Your task to perform on an android device: toggle airplane mode Image 0: 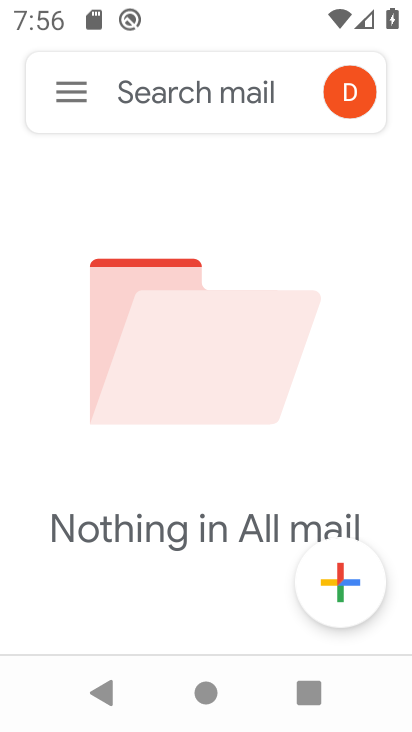
Step 0: press home button
Your task to perform on an android device: toggle airplane mode Image 1: 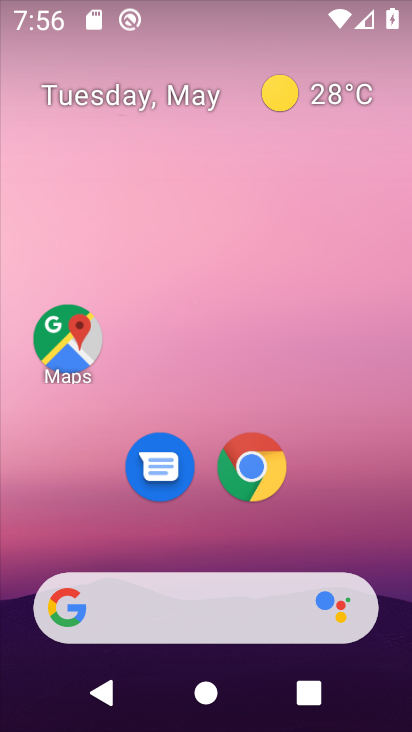
Step 1: drag from (376, 660) to (294, 3)
Your task to perform on an android device: toggle airplane mode Image 2: 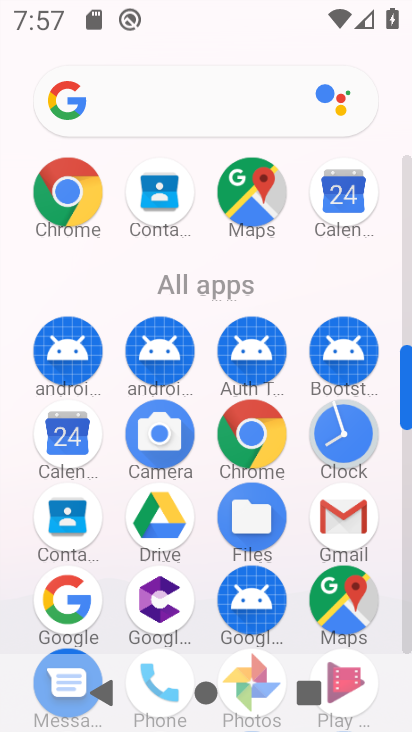
Step 2: drag from (188, 625) to (193, 278)
Your task to perform on an android device: toggle airplane mode Image 3: 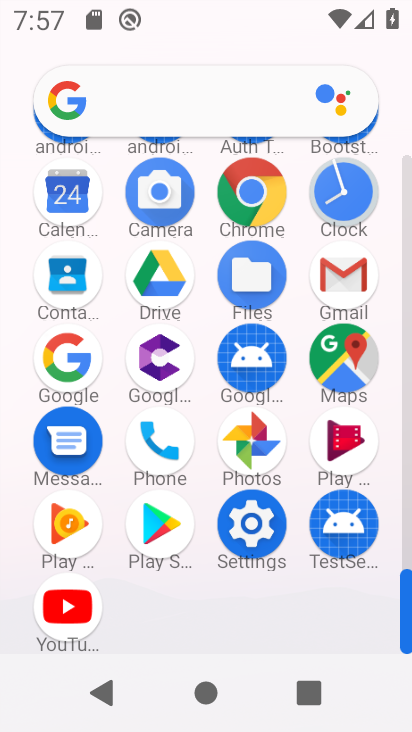
Step 3: click (235, 520)
Your task to perform on an android device: toggle airplane mode Image 4: 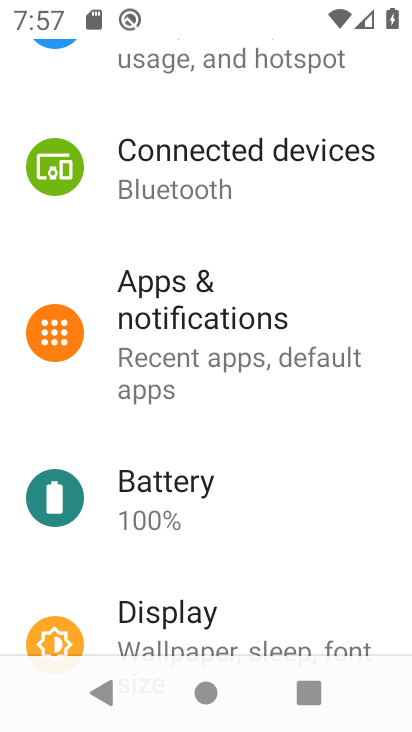
Step 4: drag from (316, 201) to (346, 625)
Your task to perform on an android device: toggle airplane mode Image 5: 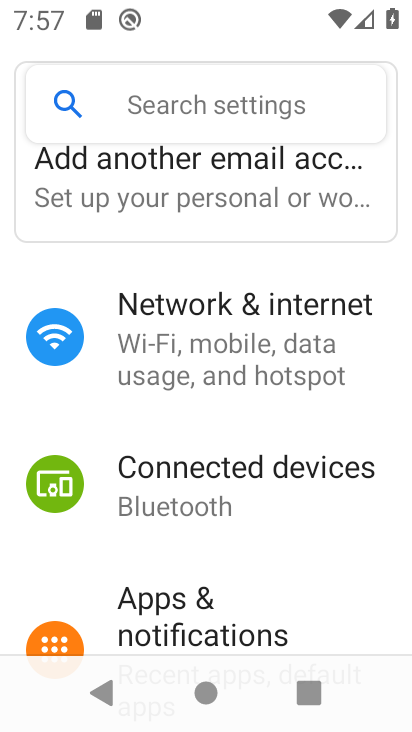
Step 5: click (203, 310)
Your task to perform on an android device: toggle airplane mode Image 6: 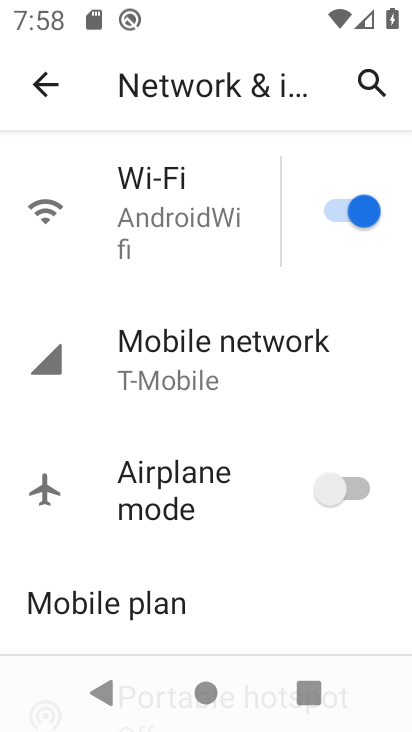
Step 6: click (346, 480)
Your task to perform on an android device: toggle airplane mode Image 7: 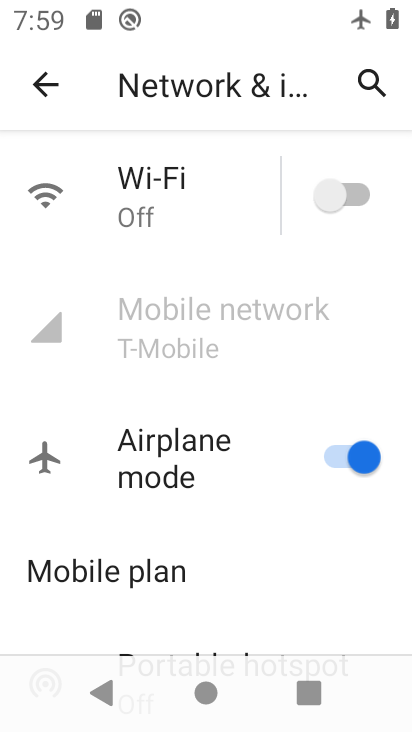
Step 7: task complete